Your task to perform on an android device: set the stopwatch Image 0: 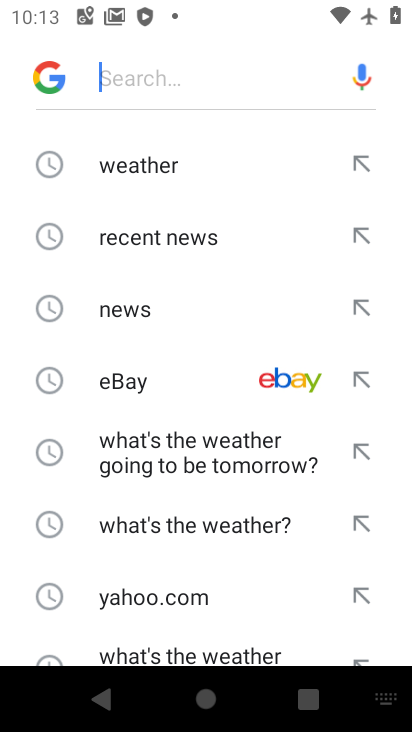
Step 0: press home button
Your task to perform on an android device: set the stopwatch Image 1: 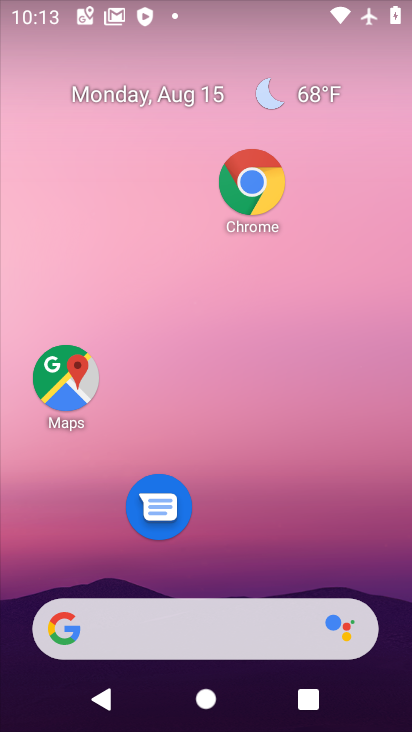
Step 1: drag from (243, 577) to (273, 47)
Your task to perform on an android device: set the stopwatch Image 2: 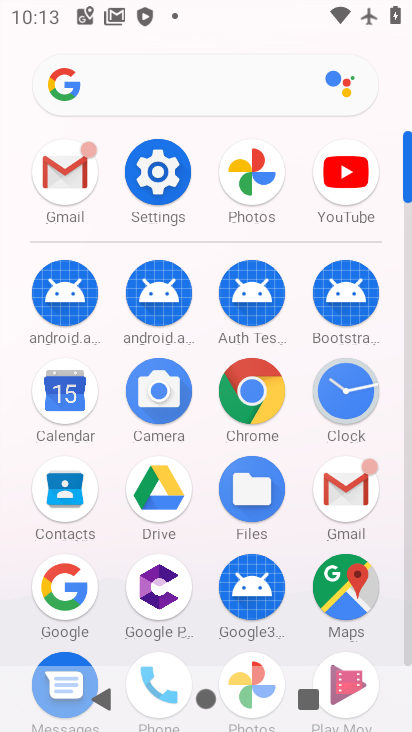
Step 2: click (342, 380)
Your task to perform on an android device: set the stopwatch Image 3: 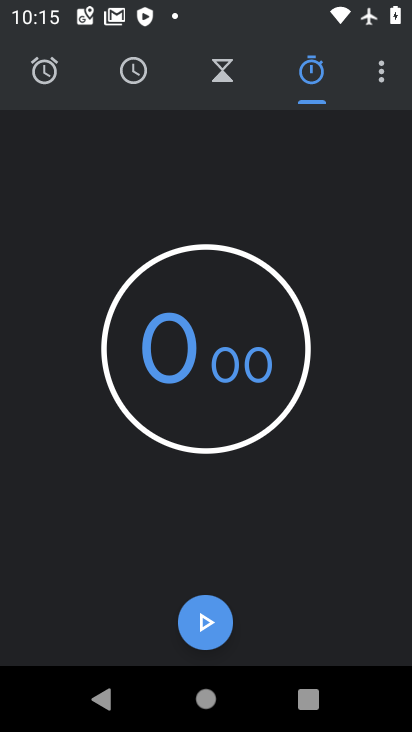
Step 3: task complete